Your task to perform on an android device: clear all cookies in the chrome app Image 0: 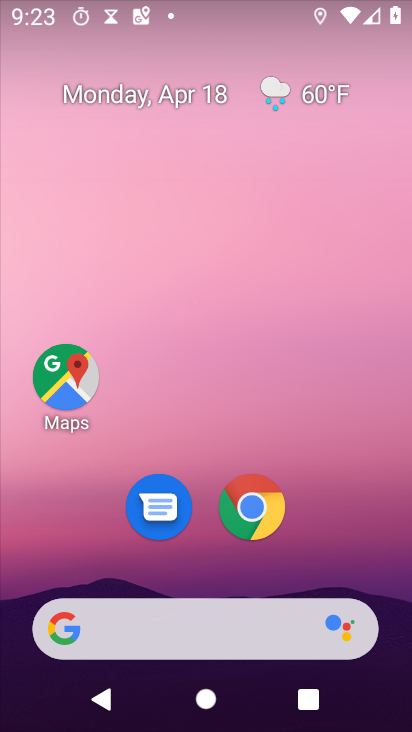
Step 0: click (258, 508)
Your task to perform on an android device: clear all cookies in the chrome app Image 1: 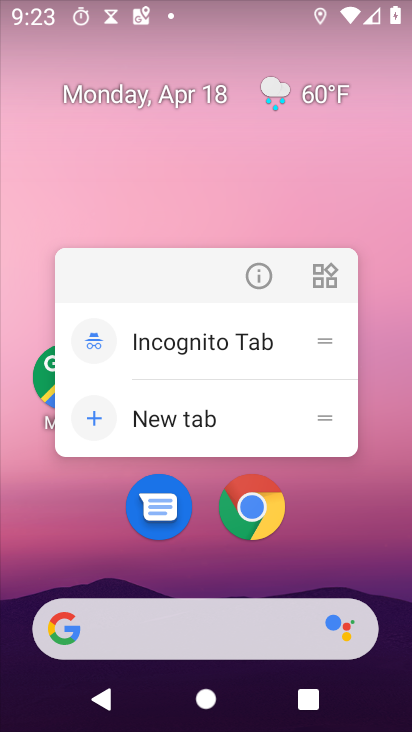
Step 1: click (259, 508)
Your task to perform on an android device: clear all cookies in the chrome app Image 2: 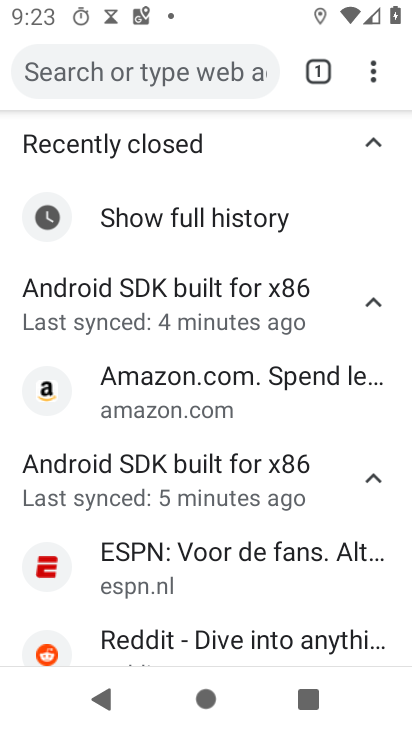
Step 2: click (383, 66)
Your task to perform on an android device: clear all cookies in the chrome app Image 3: 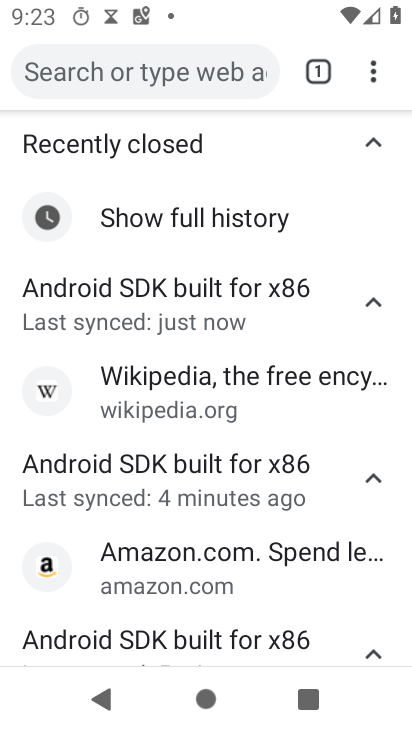
Step 3: click (388, 66)
Your task to perform on an android device: clear all cookies in the chrome app Image 4: 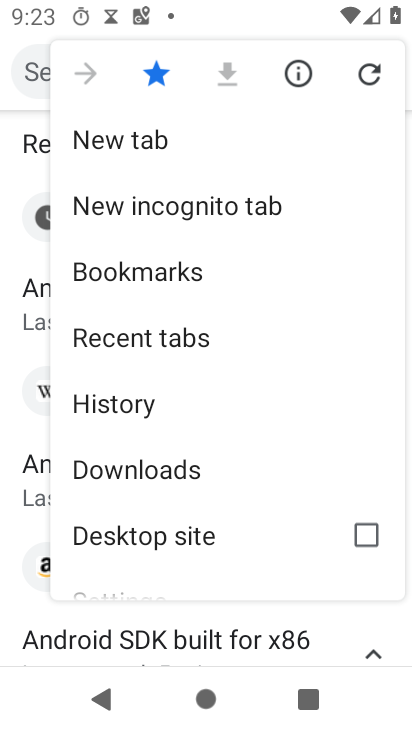
Step 4: click (215, 395)
Your task to perform on an android device: clear all cookies in the chrome app Image 5: 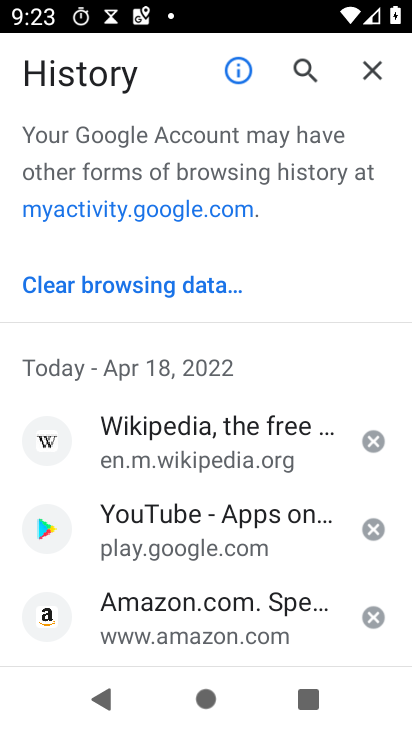
Step 5: click (202, 282)
Your task to perform on an android device: clear all cookies in the chrome app Image 6: 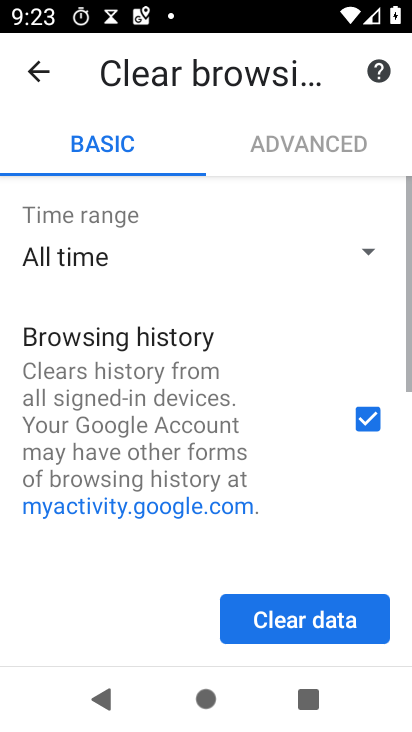
Step 6: click (345, 414)
Your task to perform on an android device: clear all cookies in the chrome app Image 7: 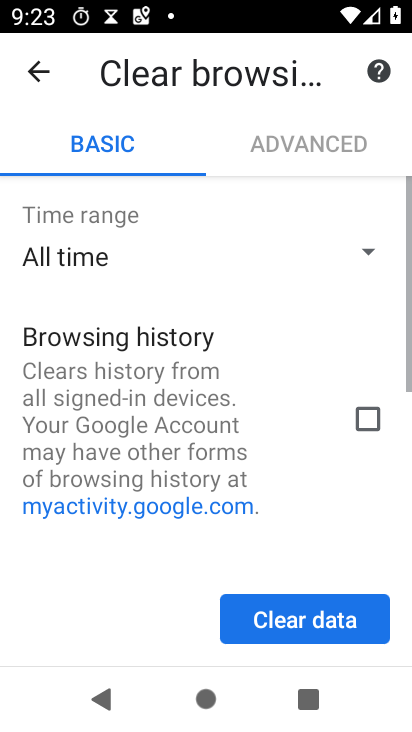
Step 7: drag from (281, 456) to (286, 232)
Your task to perform on an android device: clear all cookies in the chrome app Image 8: 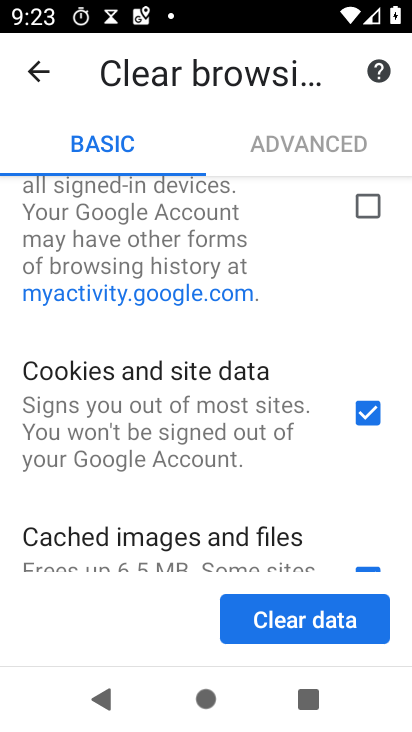
Step 8: drag from (282, 494) to (295, 333)
Your task to perform on an android device: clear all cookies in the chrome app Image 9: 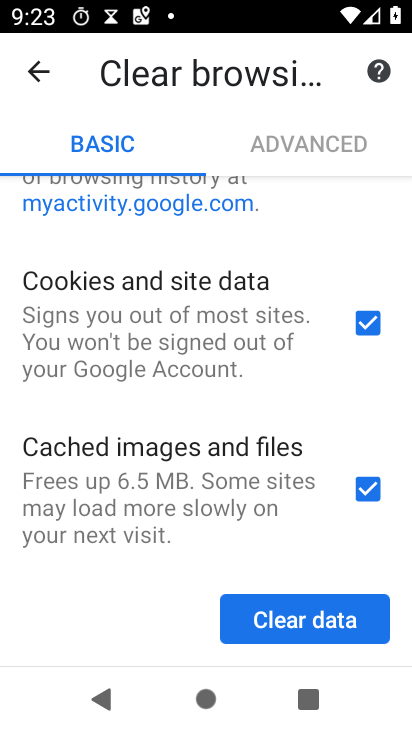
Step 9: click (318, 487)
Your task to perform on an android device: clear all cookies in the chrome app Image 10: 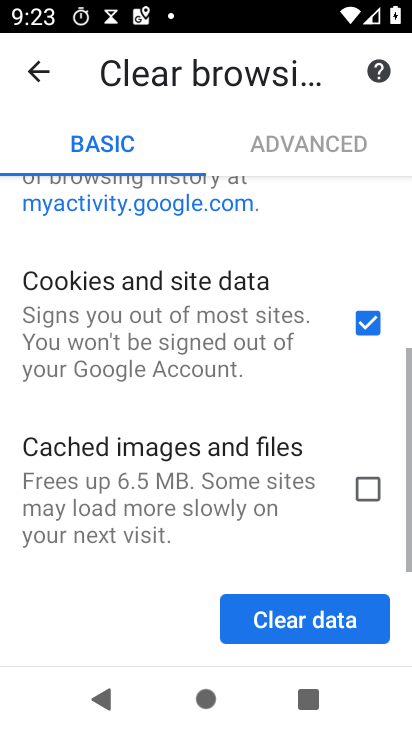
Step 10: click (297, 615)
Your task to perform on an android device: clear all cookies in the chrome app Image 11: 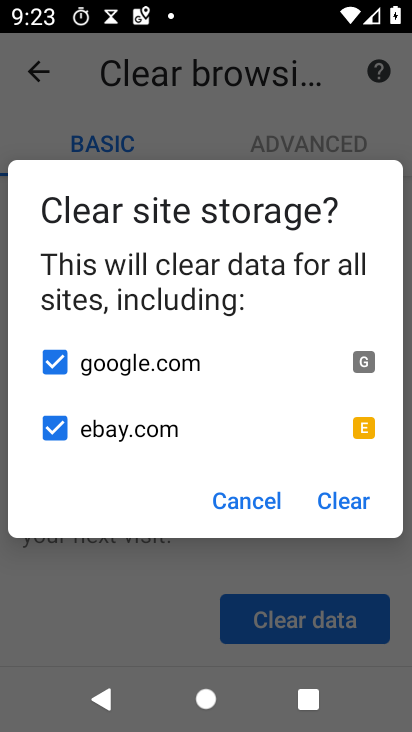
Step 11: click (334, 488)
Your task to perform on an android device: clear all cookies in the chrome app Image 12: 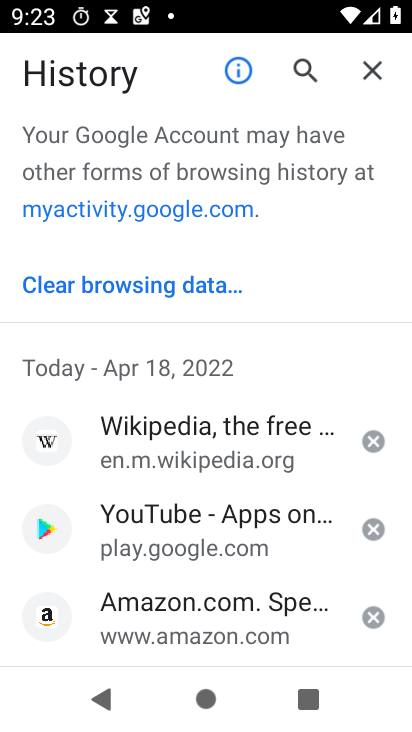
Step 12: task complete